Your task to perform on an android device: Search for vegetarian restaurants on Maps Image 0: 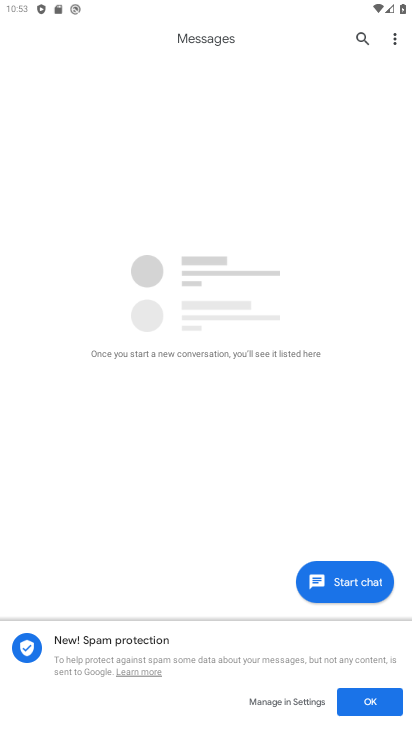
Step 0: press home button
Your task to perform on an android device: Search for vegetarian restaurants on Maps Image 1: 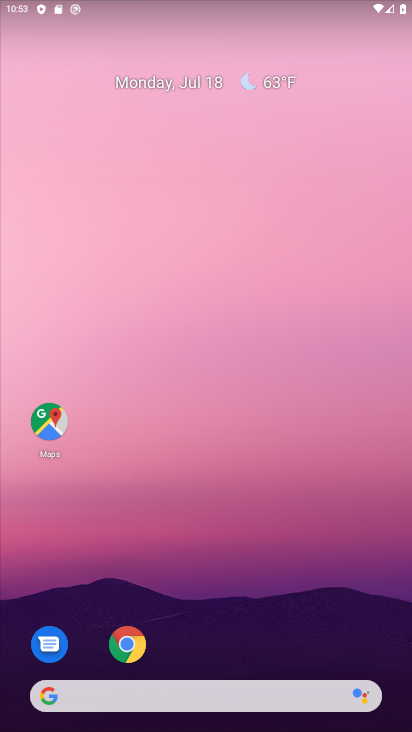
Step 1: click (44, 423)
Your task to perform on an android device: Search for vegetarian restaurants on Maps Image 2: 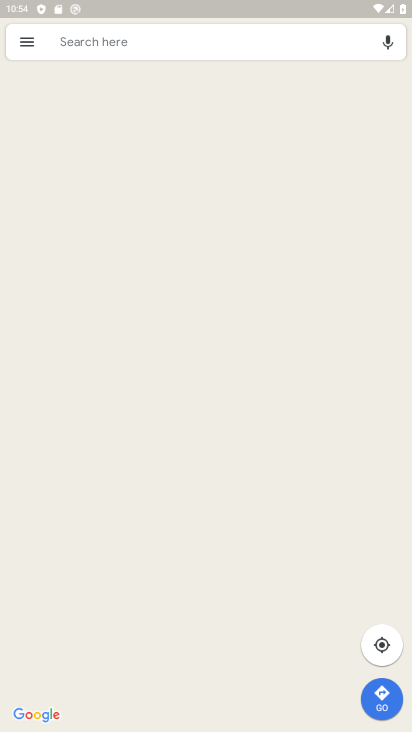
Step 2: click (96, 34)
Your task to perform on an android device: Search for vegetarian restaurants on Maps Image 3: 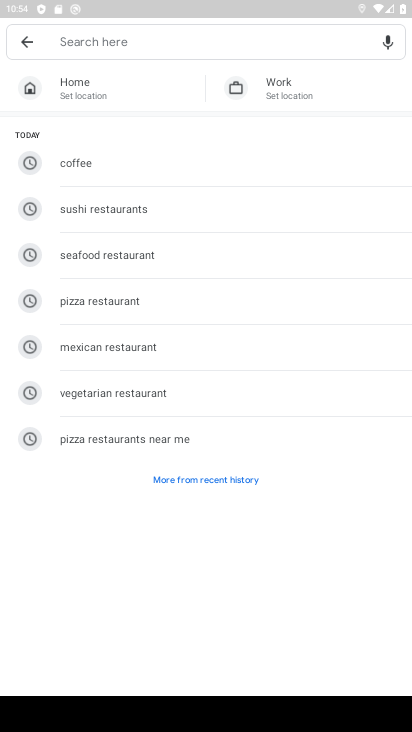
Step 3: type "vegetarian restaurants"
Your task to perform on an android device: Search for vegetarian restaurants on Maps Image 4: 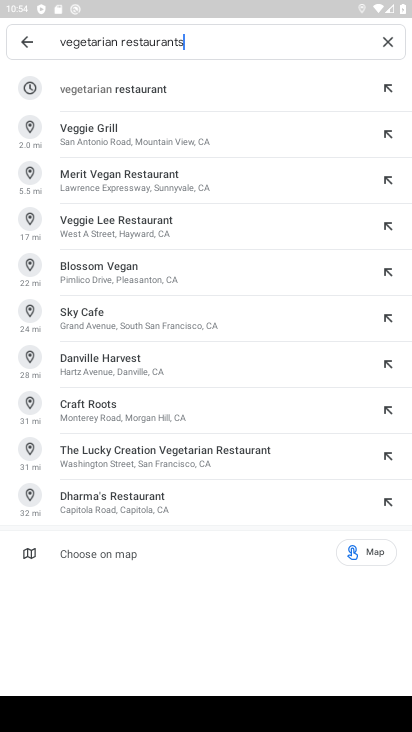
Step 4: click (141, 76)
Your task to perform on an android device: Search for vegetarian restaurants on Maps Image 5: 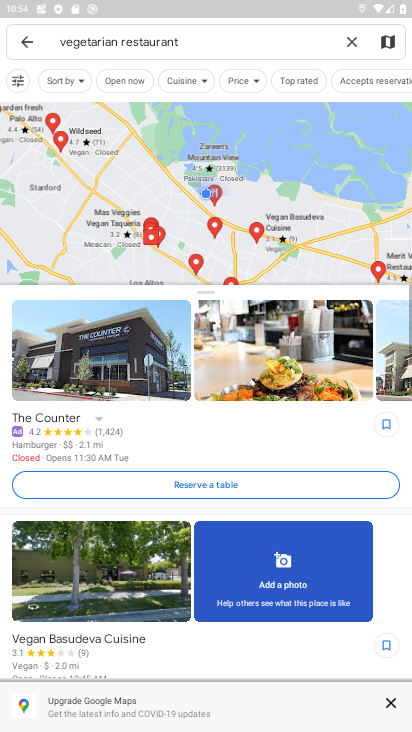
Step 5: task complete